Your task to perform on an android device: install app "The Home Depot" Image 0: 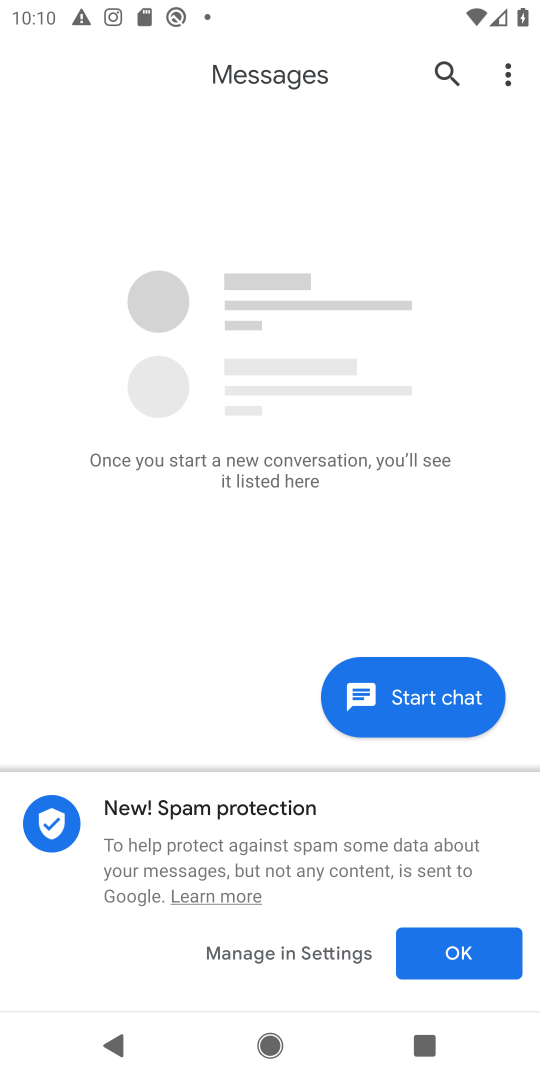
Step 0: press home button
Your task to perform on an android device: install app "The Home Depot" Image 1: 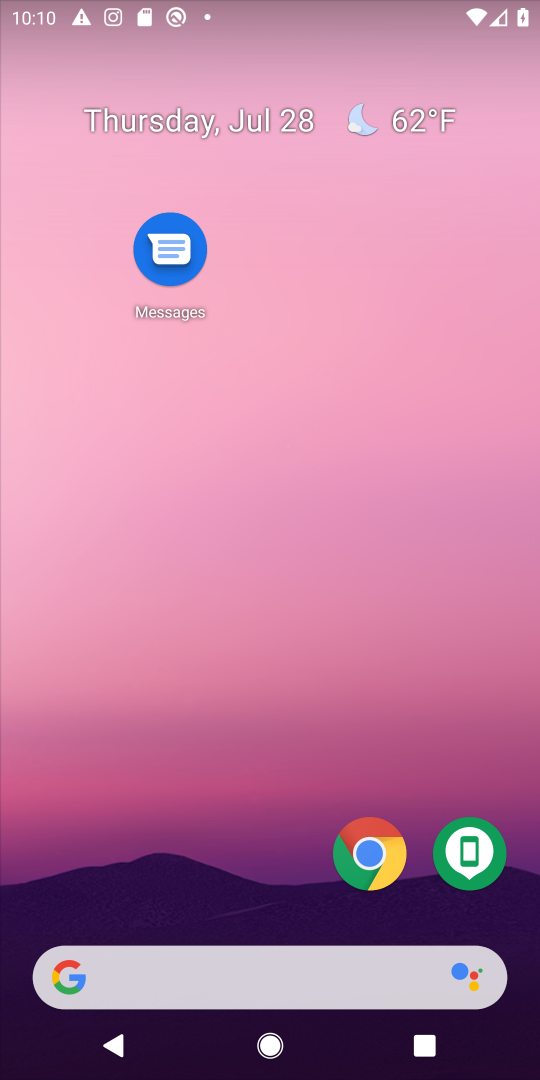
Step 1: click (225, 889)
Your task to perform on an android device: install app "The Home Depot" Image 2: 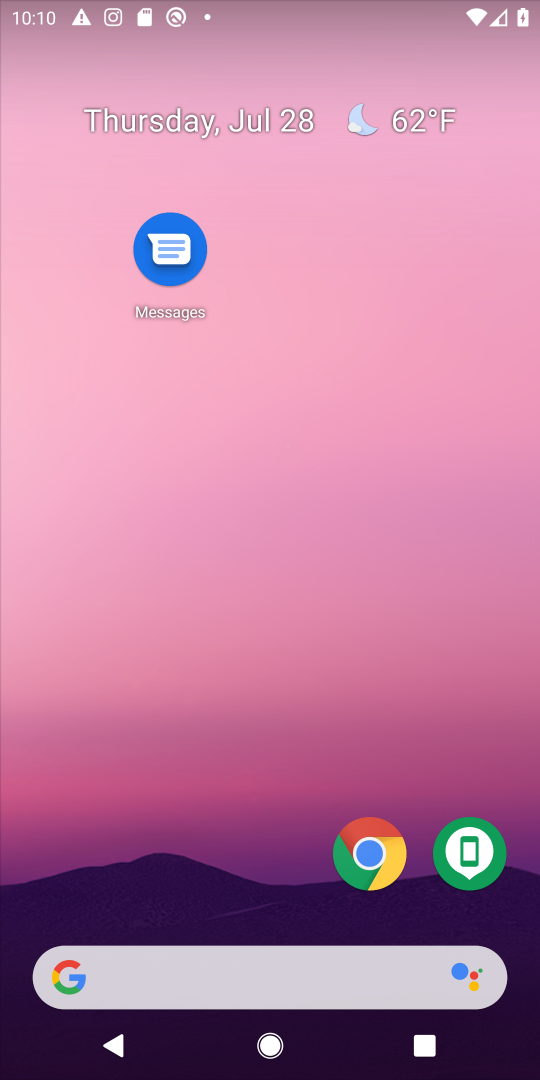
Step 2: drag from (229, 690) to (220, 106)
Your task to perform on an android device: install app "The Home Depot" Image 3: 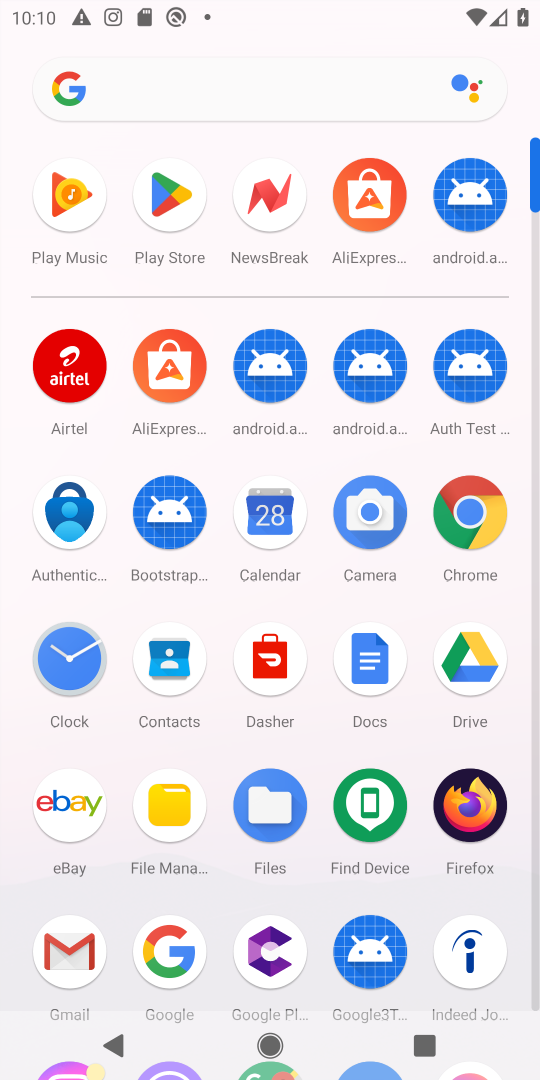
Step 3: click (182, 189)
Your task to perform on an android device: install app "The Home Depot" Image 4: 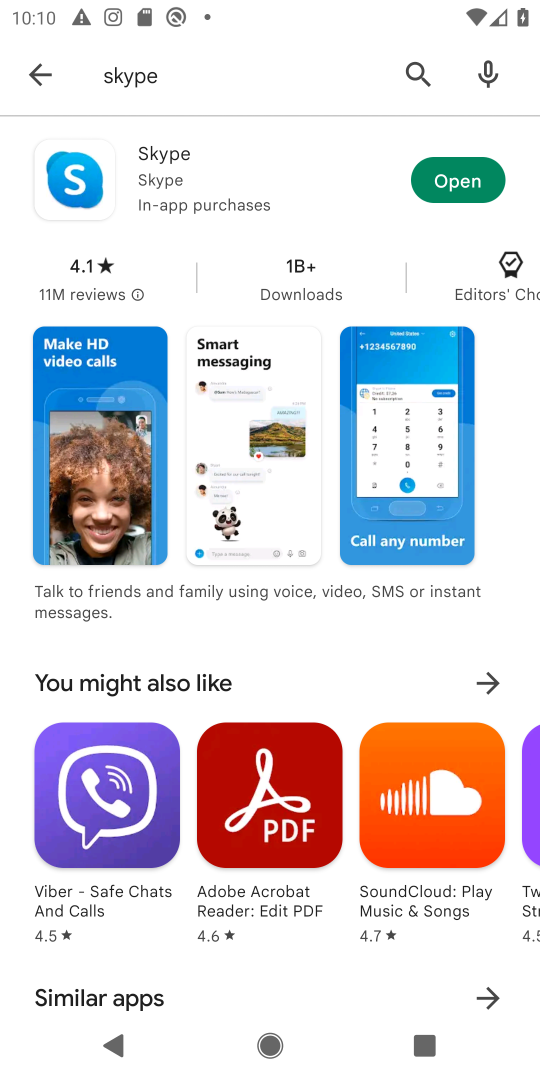
Step 4: click (42, 79)
Your task to perform on an android device: install app "The Home Depot" Image 5: 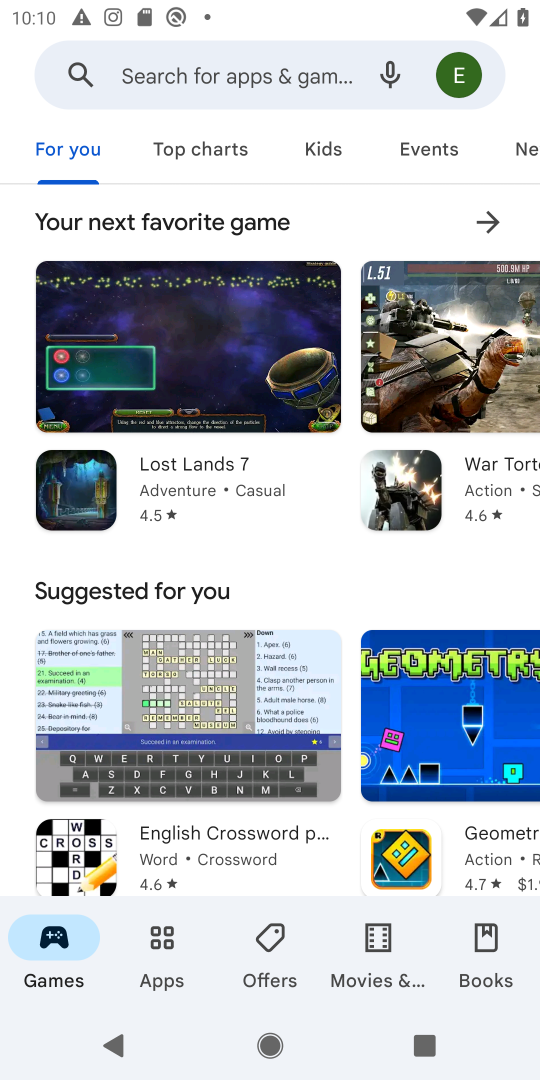
Step 5: click (187, 81)
Your task to perform on an android device: install app "The Home Depot" Image 6: 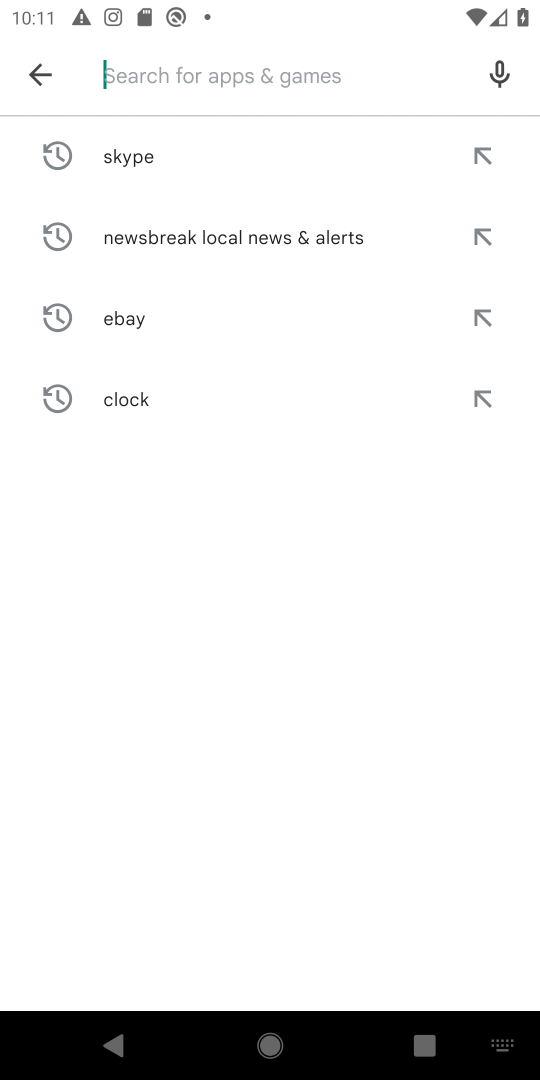
Step 6: type "The Home Depot"
Your task to perform on an android device: install app "The Home Depot" Image 7: 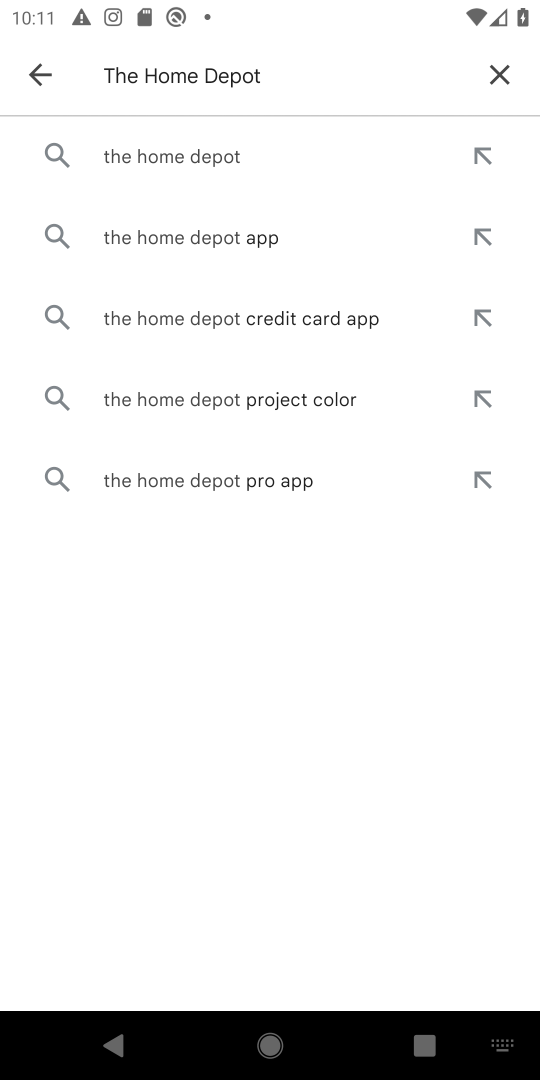
Step 7: click (213, 153)
Your task to perform on an android device: install app "The Home Depot" Image 8: 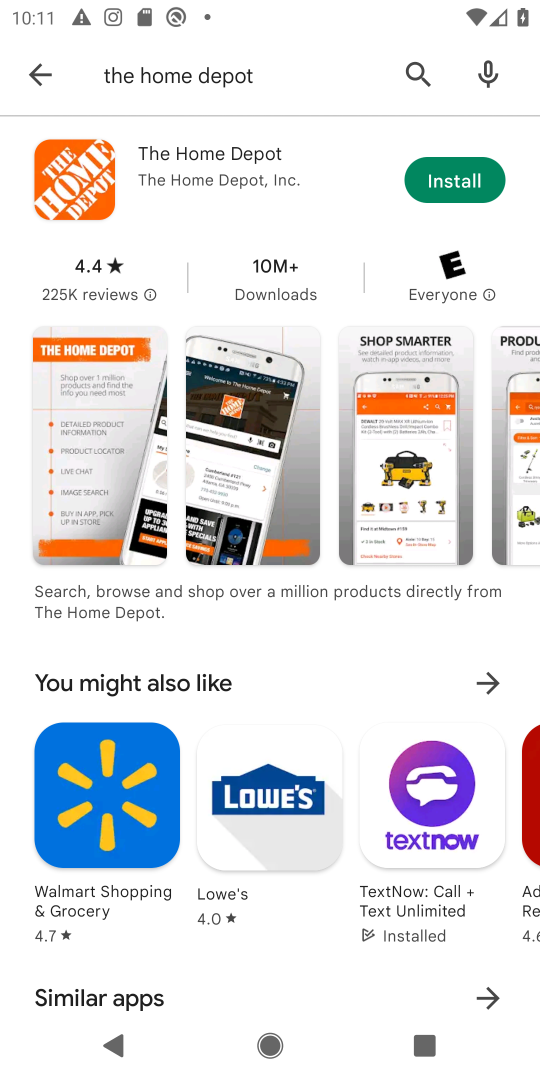
Step 8: click (468, 197)
Your task to perform on an android device: install app "The Home Depot" Image 9: 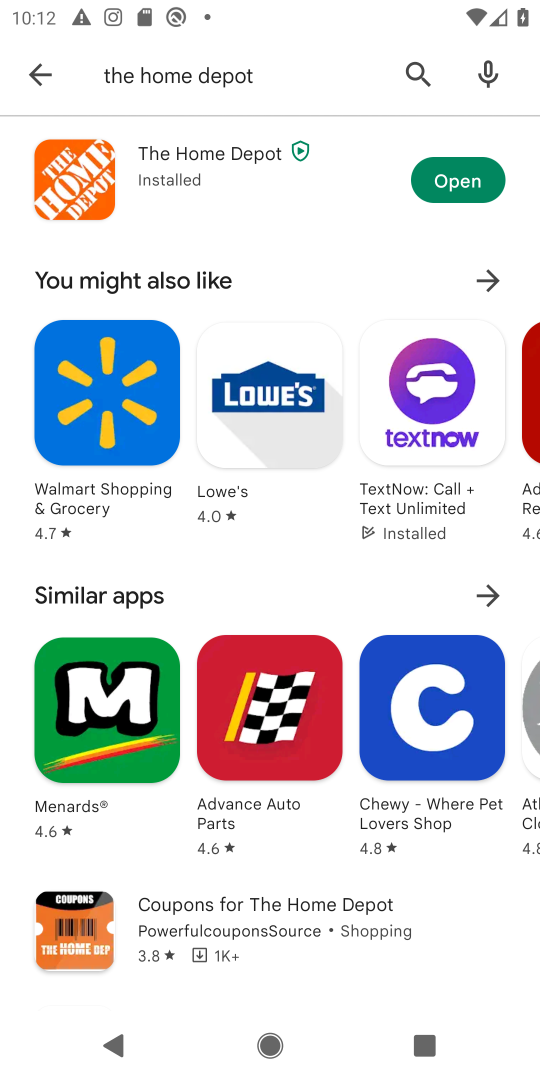
Step 9: click (435, 183)
Your task to perform on an android device: install app "The Home Depot" Image 10: 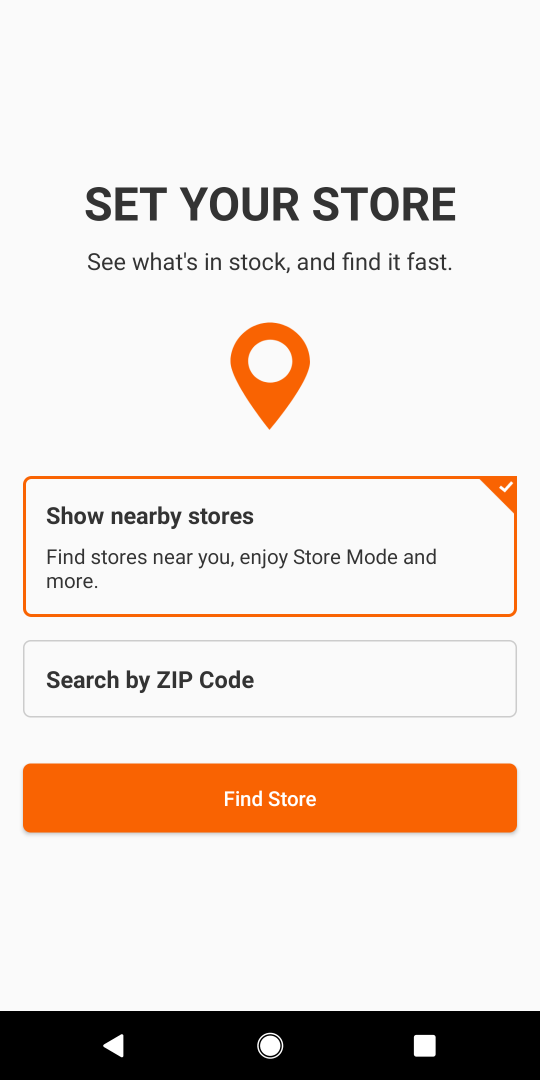
Step 10: task complete